Your task to perform on an android device: open a new tab in the chrome app Image 0: 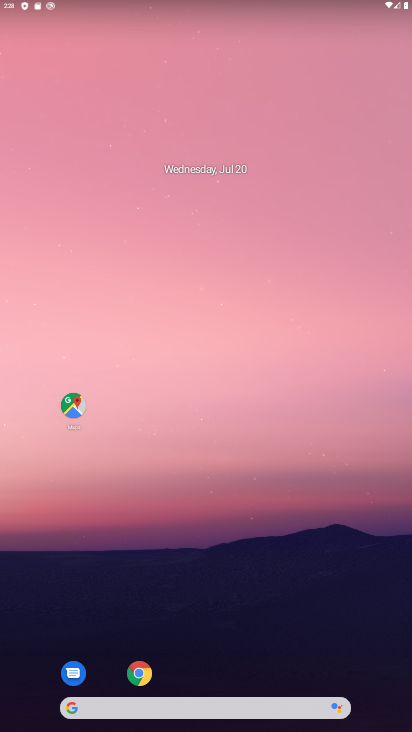
Step 0: click (141, 672)
Your task to perform on an android device: open a new tab in the chrome app Image 1: 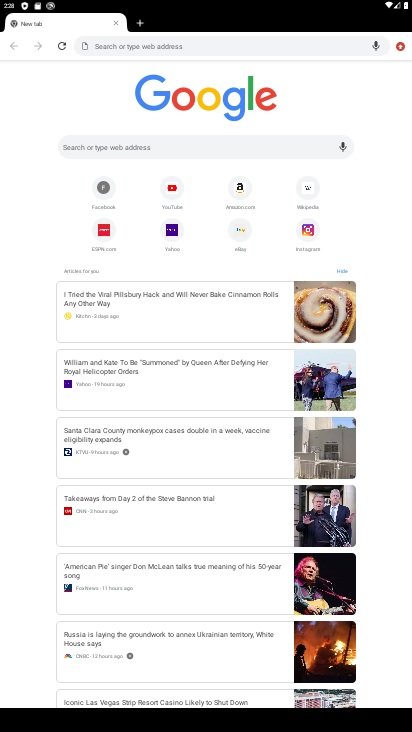
Step 1: click (143, 28)
Your task to perform on an android device: open a new tab in the chrome app Image 2: 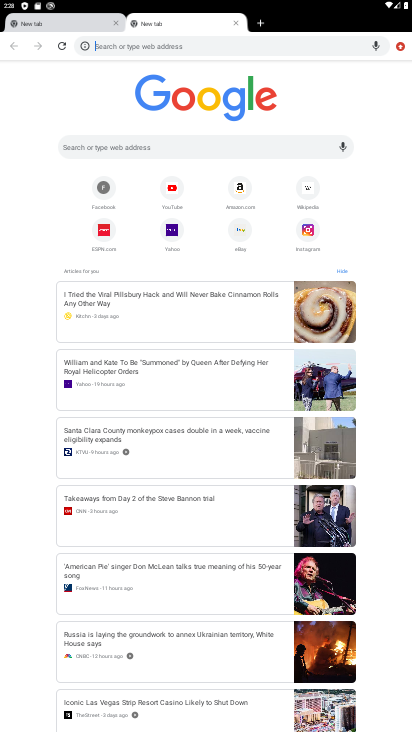
Step 2: task complete